Your task to perform on an android device: toggle pop-ups in chrome Image 0: 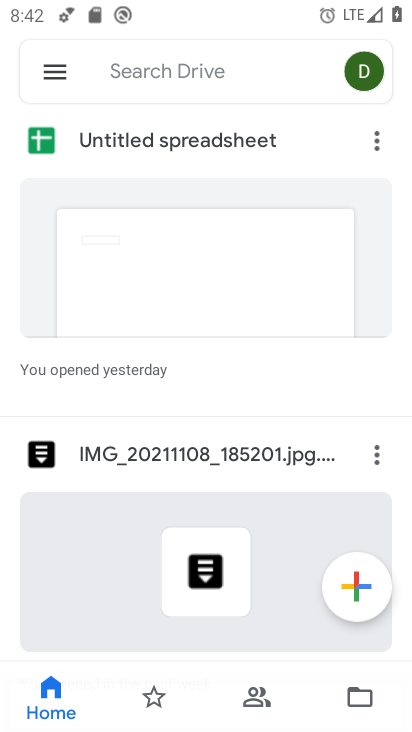
Step 0: press home button
Your task to perform on an android device: toggle pop-ups in chrome Image 1: 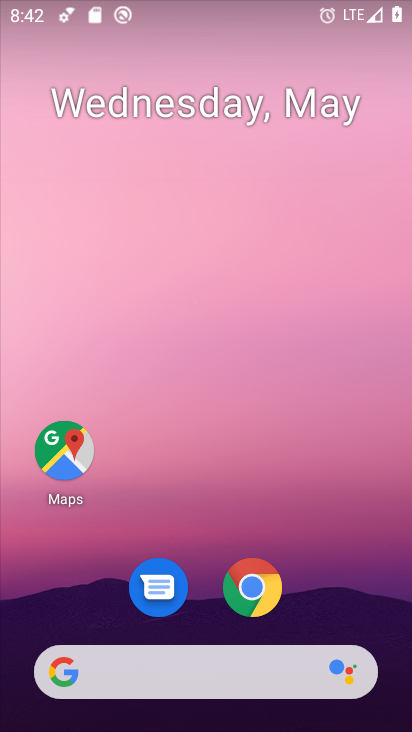
Step 1: click (242, 621)
Your task to perform on an android device: toggle pop-ups in chrome Image 2: 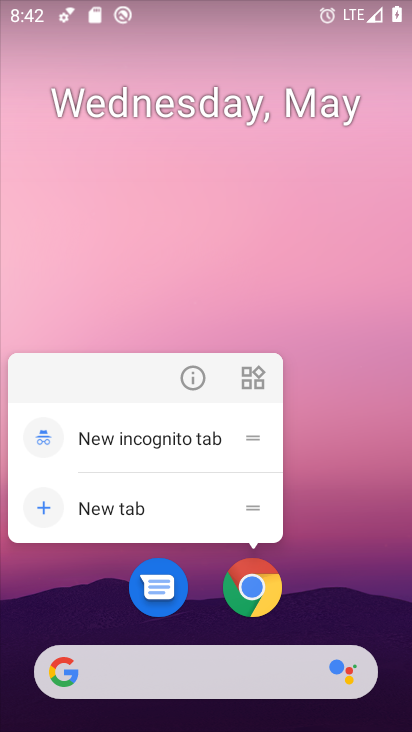
Step 2: click (264, 586)
Your task to perform on an android device: toggle pop-ups in chrome Image 3: 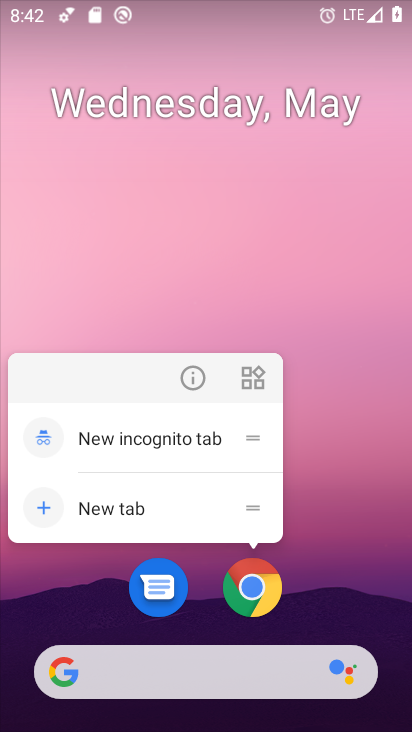
Step 3: click (256, 572)
Your task to perform on an android device: toggle pop-ups in chrome Image 4: 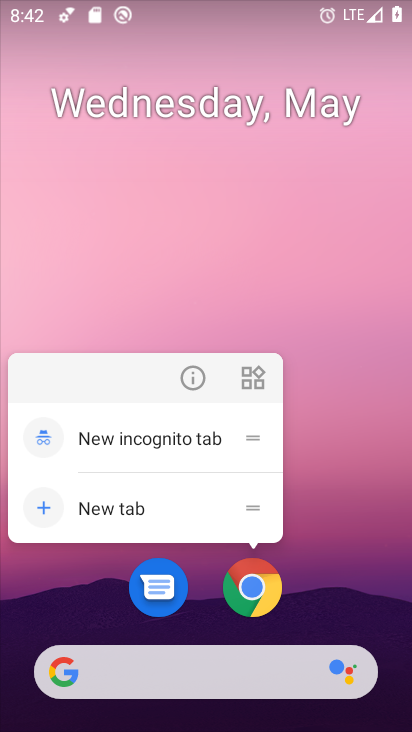
Step 4: click (257, 574)
Your task to perform on an android device: toggle pop-ups in chrome Image 5: 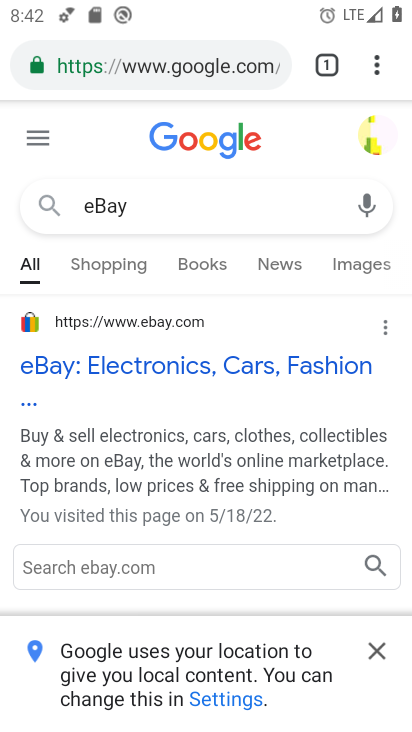
Step 5: click (257, 574)
Your task to perform on an android device: toggle pop-ups in chrome Image 6: 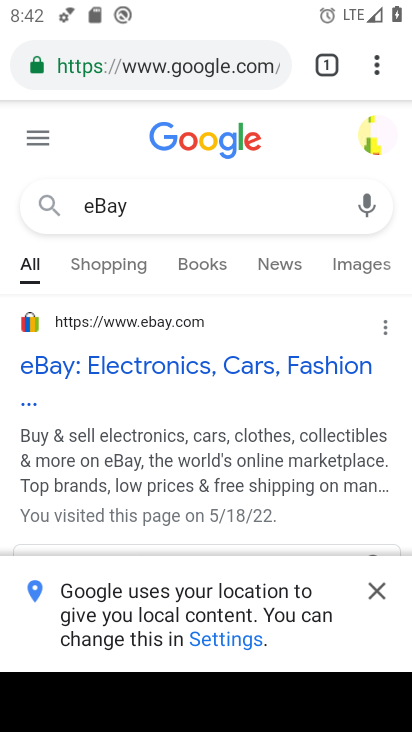
Step 6: click (379, 63)
Your task to perform on an android device: toggle pop-ups in chrome Image 7: 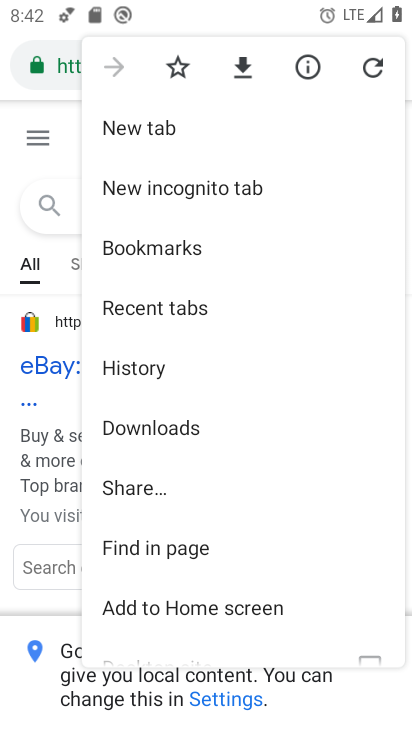
Step 7: drag from (155, 536) to (237, 153)
Your task to perform on an android device: toggle pop-ups in chrome Image 8: 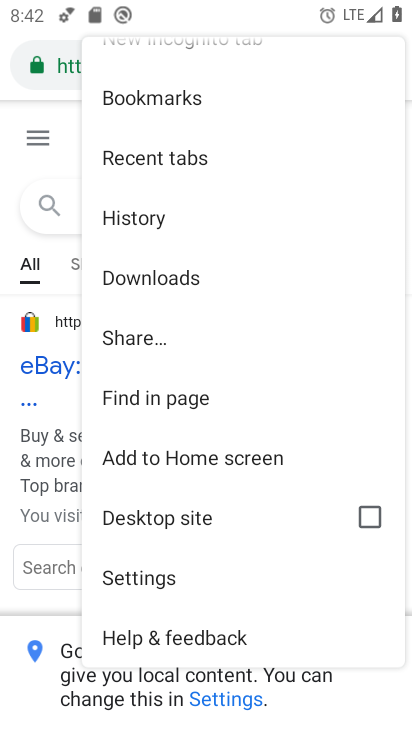
Step 8: click (167, 574)
Your task to perform on an android device: toggle pop-ups in chrome Image 9: 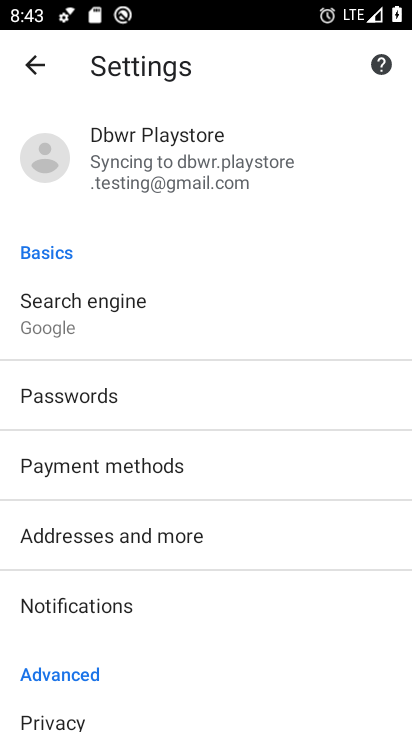
Step 9: drag from (150, 599) to (166, 367)
Your task to perform on an android device: toggle pop-ups in chrome Image 10: 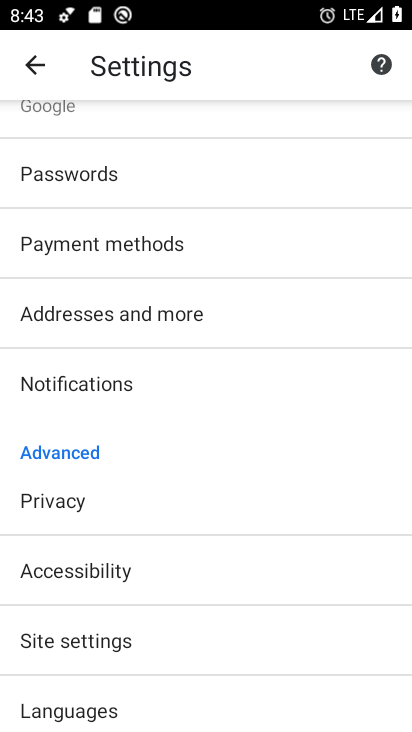
Step 10: drag from (96, 623) to (216, 293)
Your task to perform on an android device: toggle pop-ups in chrome Image 11: 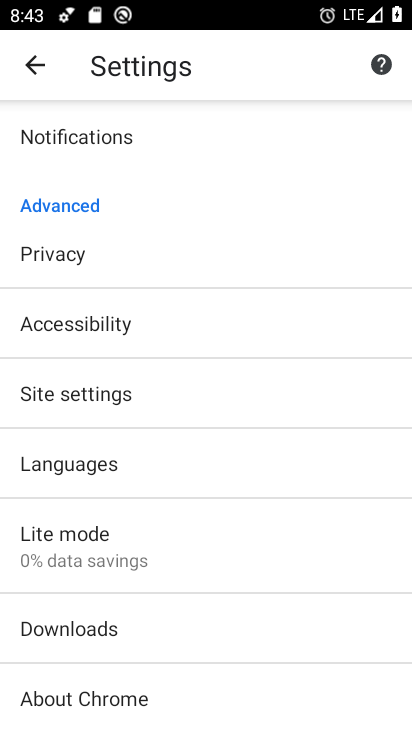
Step 11: click (106, 397)
Your task to perform on an android device: toggle pop-ups in chrome Image 12: 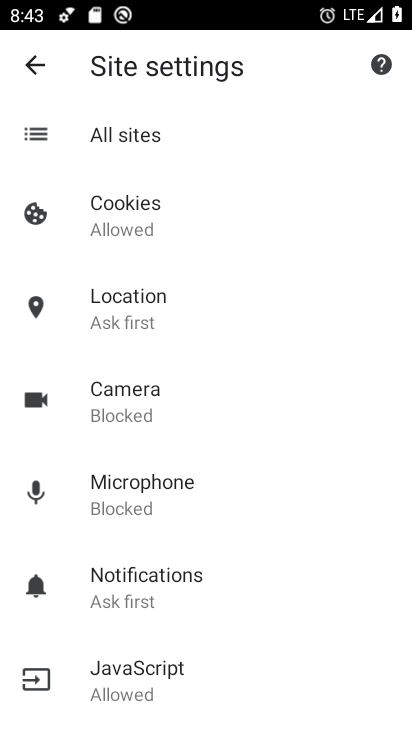
Step 12: drag from (139, 621) to (167, 390)
Your task to perform on an android device: toggle pop-ups in chrome Image 13: 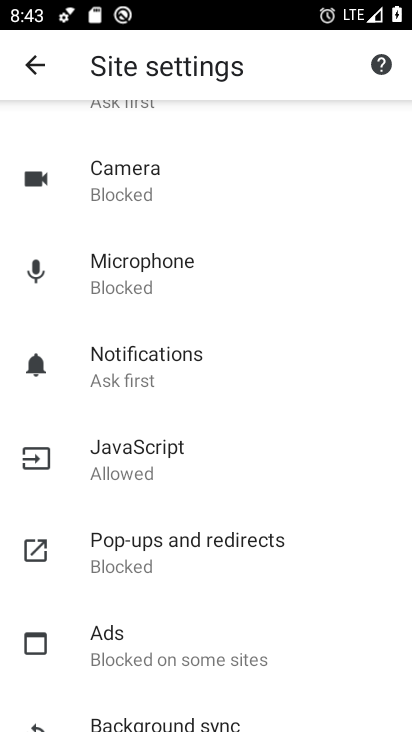
Step 13: click (154, 561)
Your task to perform on an android device: toggle pop-ups in chrome Image 14: 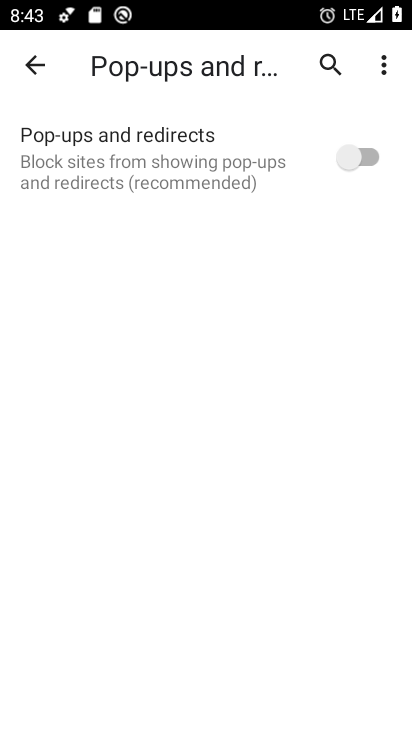
Step 14: click (374, 150)
Your task to perform on an android device: toggle pop-ups in chrome Image 15: 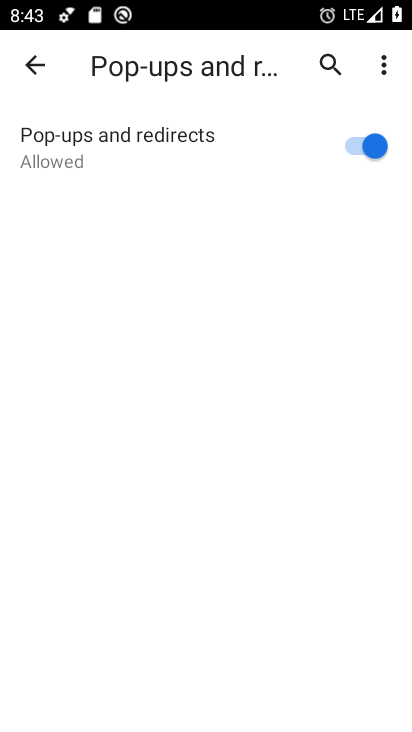
Step 15: task complete